Your task to perform on an android device: open app "Pluto TV - Live TV and Movies" (install if not already installed) Image 0: 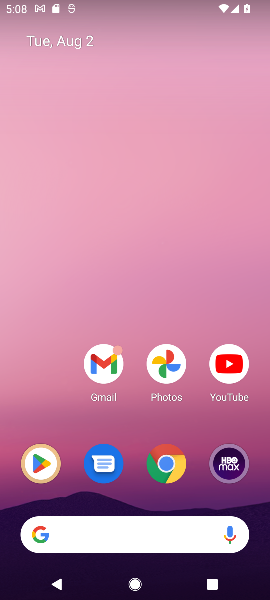
Step 0: click (40, 465)
Your task to perform on an android device: open app "Pluto TV - Live TV and Movies" (install if not already installed) Image 1: 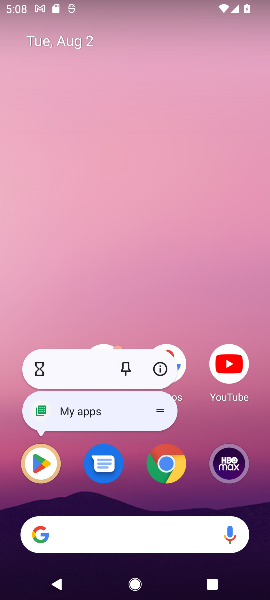
Step 1: click (40, 463)
Your task to perform on an android device: open app "Pluto TV - Live TV and Movies" (install if not already installed) Image 2: 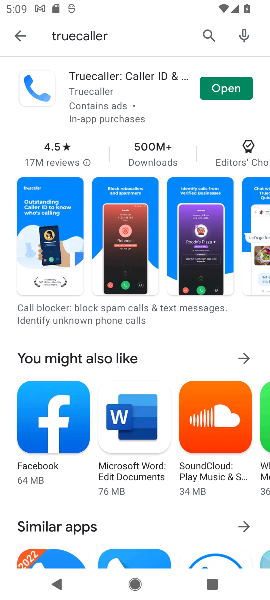
Step 2: click (207, 32)
Your task to perform on an android device: open app "Pluto TV - Live TV and Movies" (install if not already installed) Image 3: 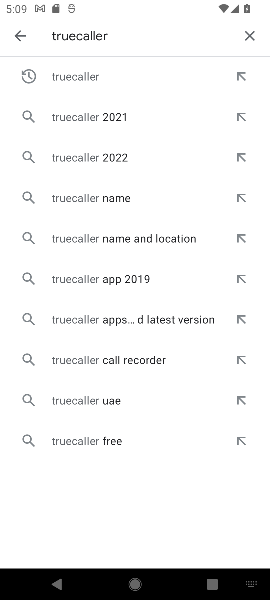
Step 3: click (250, 37)
Your task to perform on an android device: open app "Pluto TV - Live TV and Movies" (install if not already installed) Image 4: 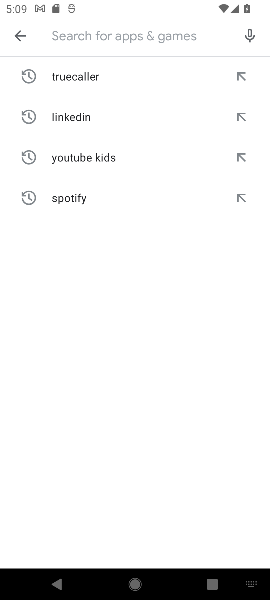
Step 4: type "Pluto TV - Live TV and Movies"
Your task to perform on an android device: open app "Pluto TV - Live TV and Movies" (install if not already installed) Image 5: 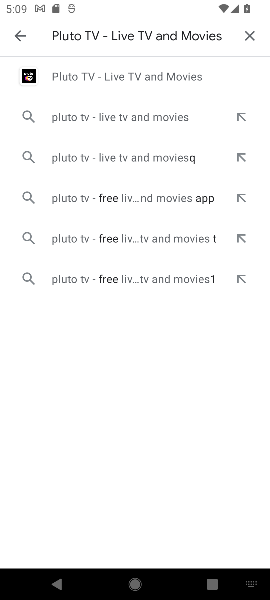
Step 5: click (113, 81)
Your task to perform on an android device: open app "Pluto TV - Live TV and Movies" (install if not already installed) Image 6: 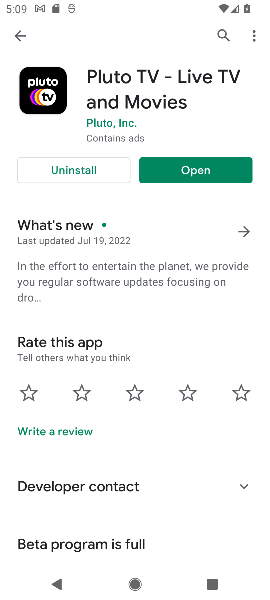
Step 6: click (218, 164)
Your task to perform on an android device: open app "Pluto TV - Live TV and Movies" (install if not already installed) Image 7: 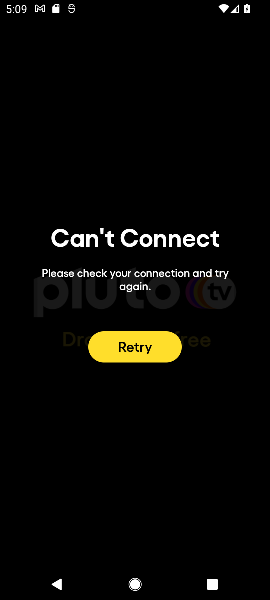
Step 7: task complete